Your task to perform on an android device: Search for good Greek restaurants Image 0: 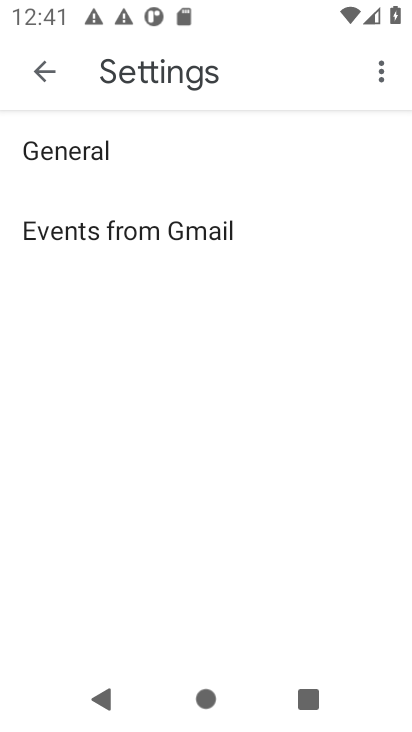
Step 0: press home button
Your task to perform on an android device: Search for good Greek restaurants Image 1: 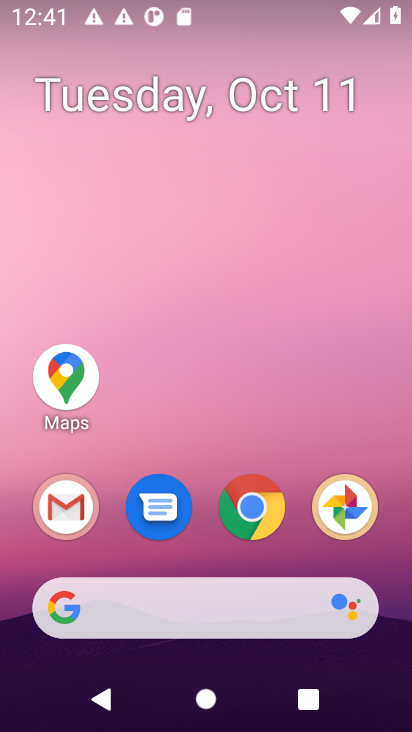
Step 1: drag from (211, 578) to (280, 53)
Your task to perform on an android device: Search for good Greek restaurants Image 2: 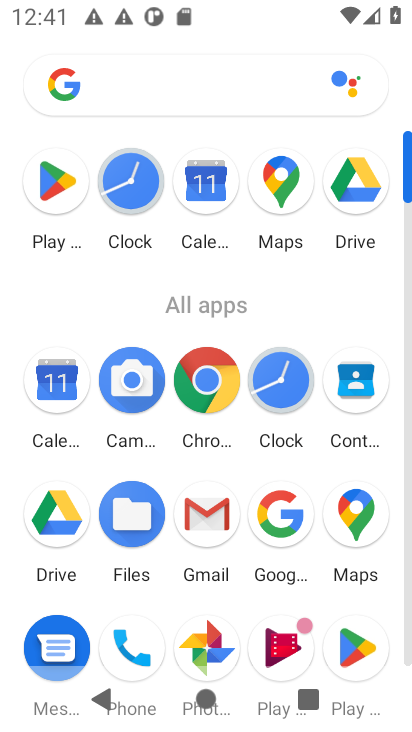
Step 2: click (270, 517)
Your task to perform on an android device: Search for good Greek restaurants Image 3: 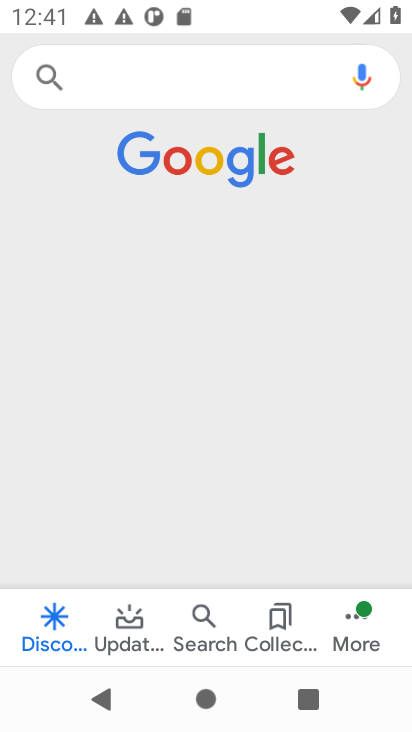
Step 3: click (127, 86)
Your task to perform on an android device: Search for good Greek restaurants Image 4: 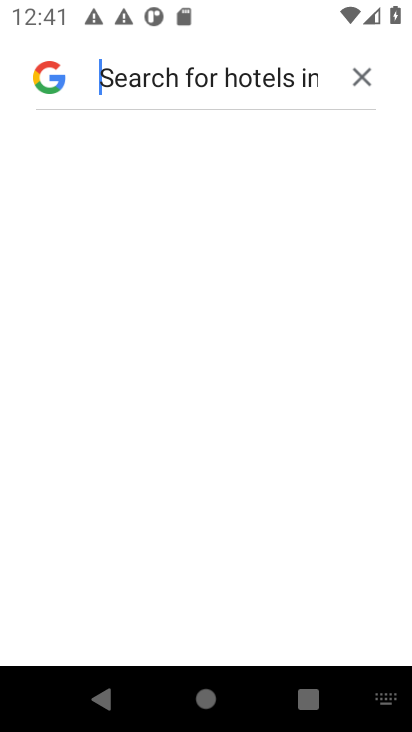
Step 4: click (359, 85)
Your task to perform on an android device: Search for good Greek restaurants Image 5: 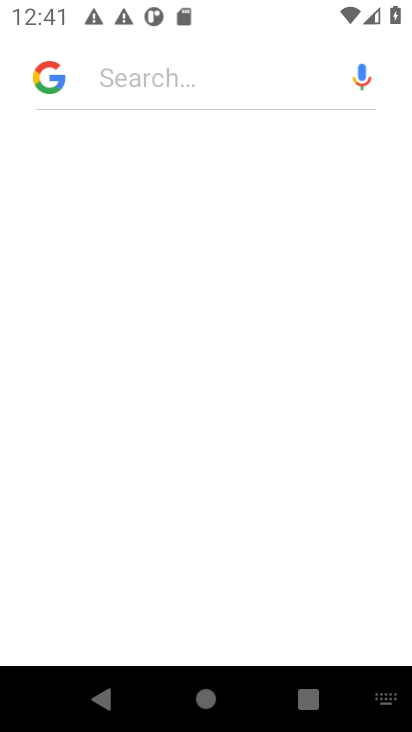
Step 5: type "Search for good Greek restaurants"
Your task to perform on an android device: Search for good Greek restaurants Image 6: 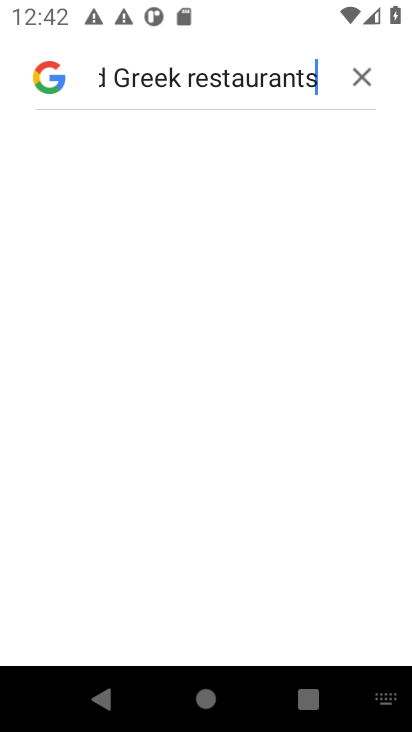
Step 6: task complete